Your task to perform on an android device: choose inbox layout in the gmail app Image 0: 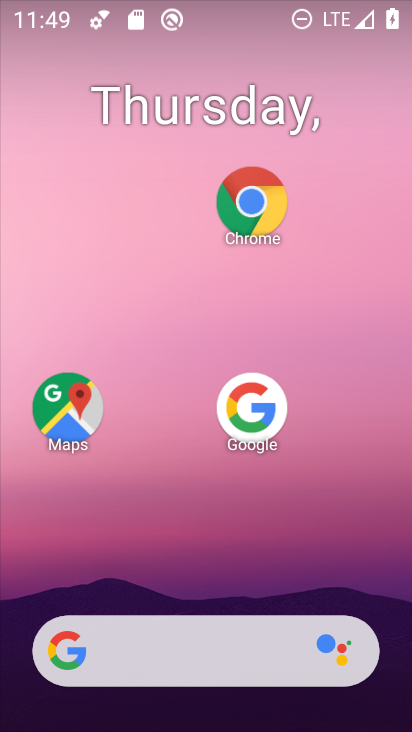
Step 0: drag from (174, 596) to (150, 22)
Your task to perform on an android device: choose inbox layout in the gmail app Image 1: 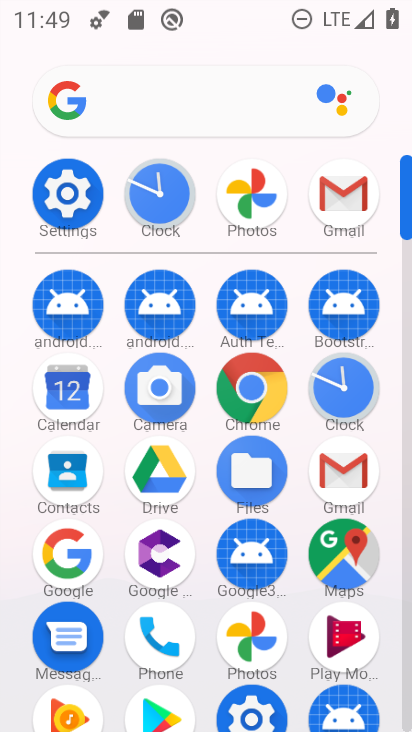
Step 1: click (346, 475)
Your task to perform on an android device: choose inbox layout in the gmail app Image 2: 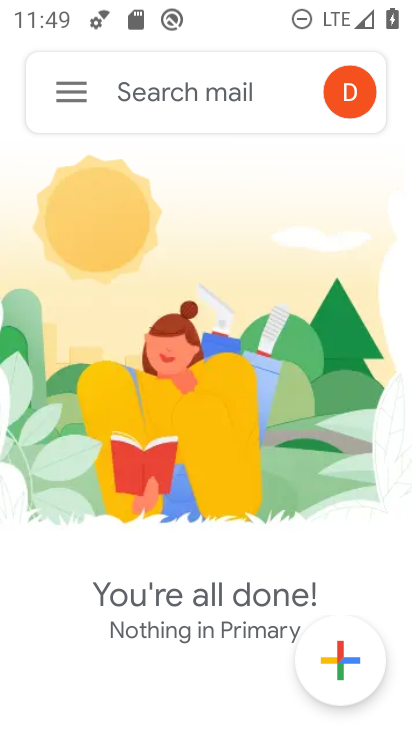
Step 2: click (69, 104)
Your task to perform on an android device: choose inbox layout in the gmail app Image 3: 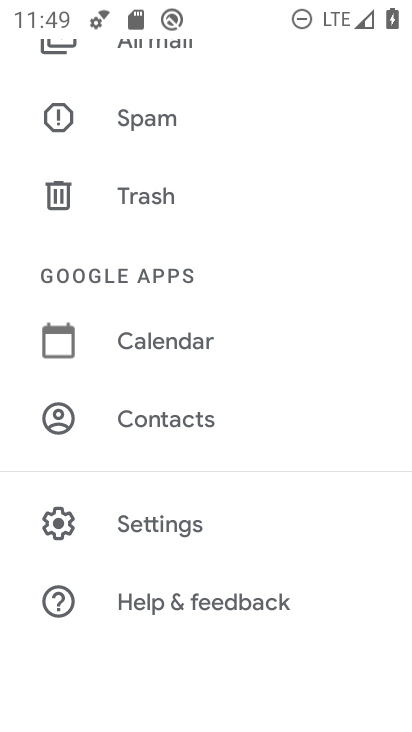
Step 3: click (155, 535)
Your task to perform on an android device: choose inbox layout in the gmail app Image 4: 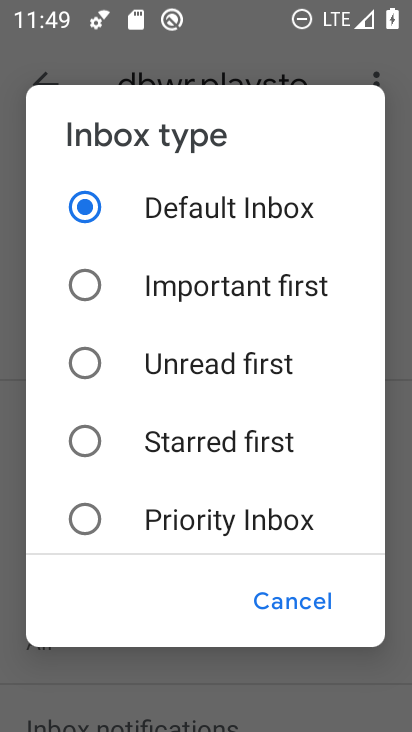
Step 4: click (296, 586)
Your task to perform on an android device: choose inbox layout in the gmail app Image 5: 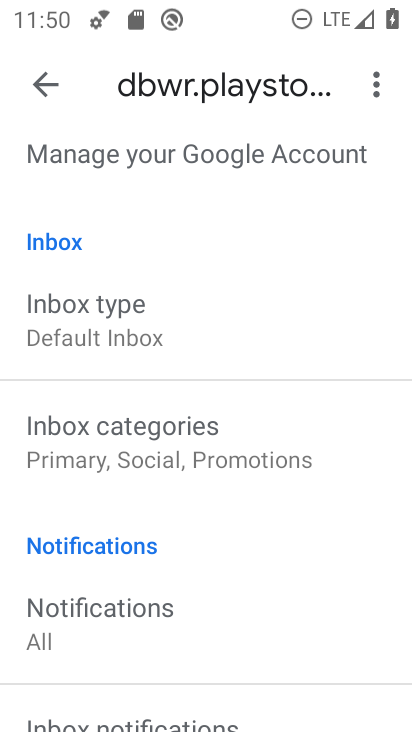
Step 5: click (104, 353)
Your task to perform on an android device: choose inbox layout in the gmail app Image 6: 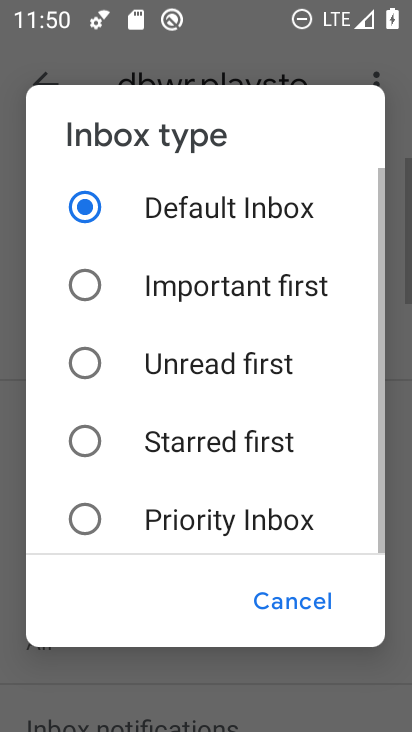
Step 6: task complete